Your task to perform on an android device: delete browsing data in the chrome app Image 0: 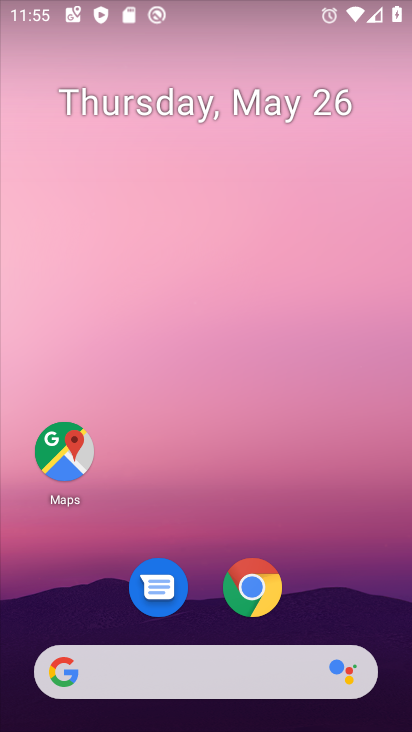
Step 0: drag from (297, 694) to (299, 53)
Your task to perform on an android device: delete browsing data in the chrome app Image 1: 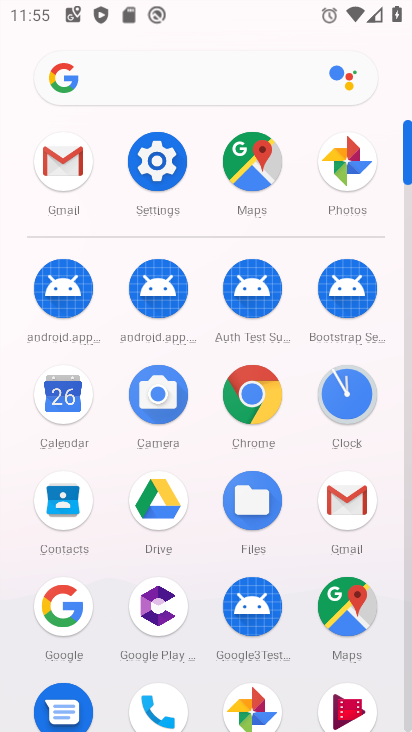
Step 1: click (255, 417)
Your task to perform on an android device: delete browsing data in the chrome app Image 2: 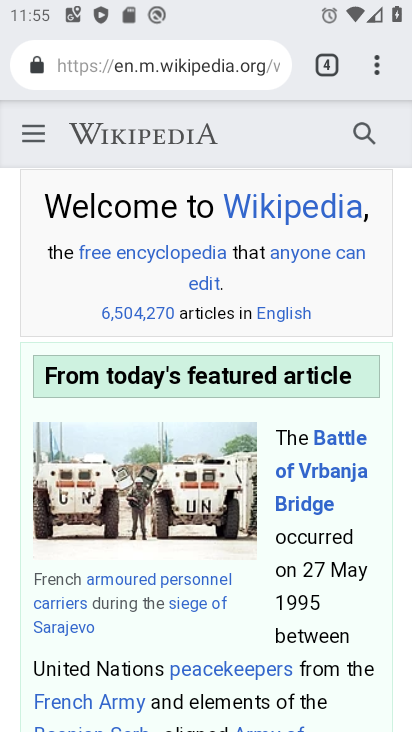
Step 2: click (374, 72)
Your task to perform on an android device: delete browsing data in the chrome app Image 3: 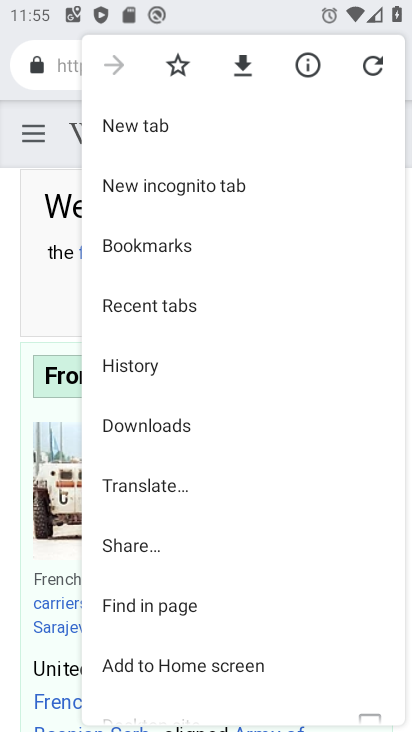
Step 3: drag from (236, 421) to (225, 94)
Your task to perform on an android device: delete browsing data in the chrome app Image 4: 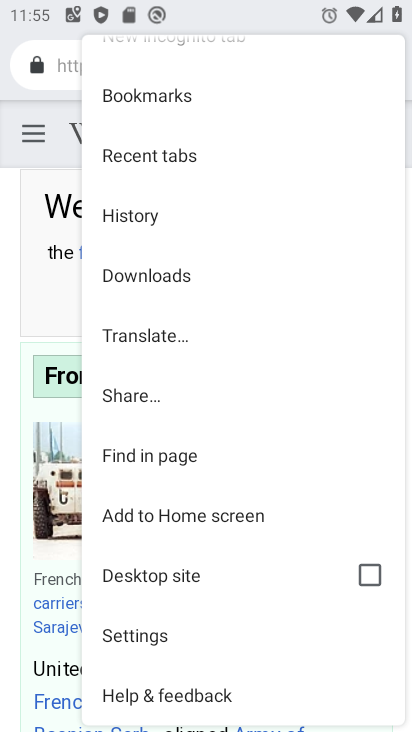
Step 4: click (157, 640)
Your task to perform on an android device: delete browsing data in the chrome app Image 5: 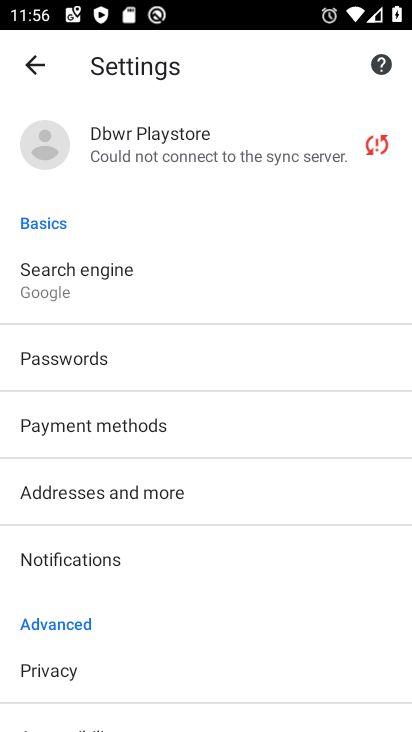
Step 5: drag from (156, 638) to (230, 352)
Your task to perform on an android device: delete browsing data in the chrome app Image 6: 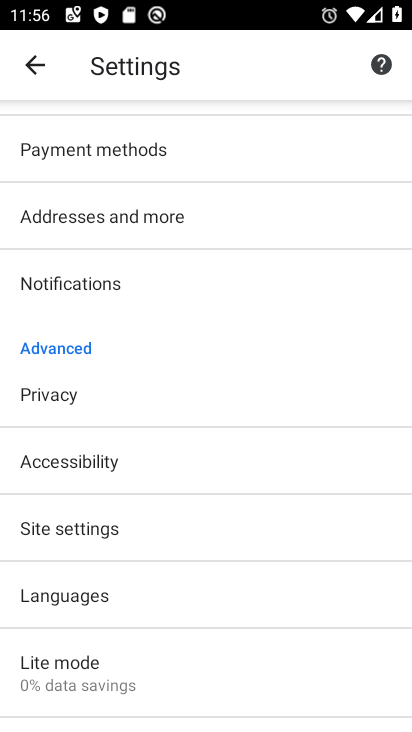
Step 6: drag from (151, 584) to (179, 437)
Your task to perform on an android device: delete browsing data in the chrome app Image 7: 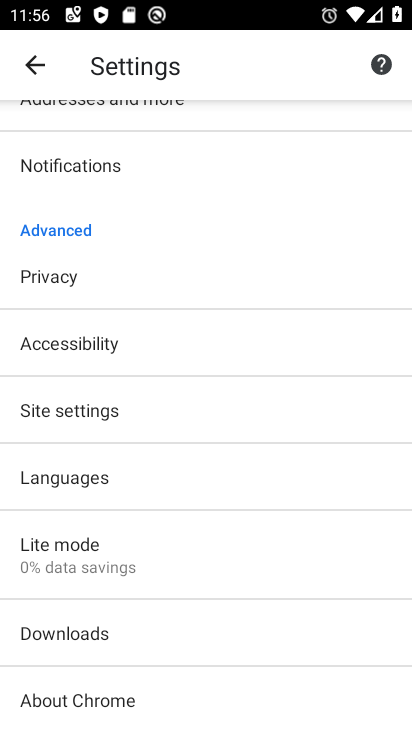
Step 7: click (68, 284)
Your task to perform on an android device: delete browsing data in the chrome app Image 8: 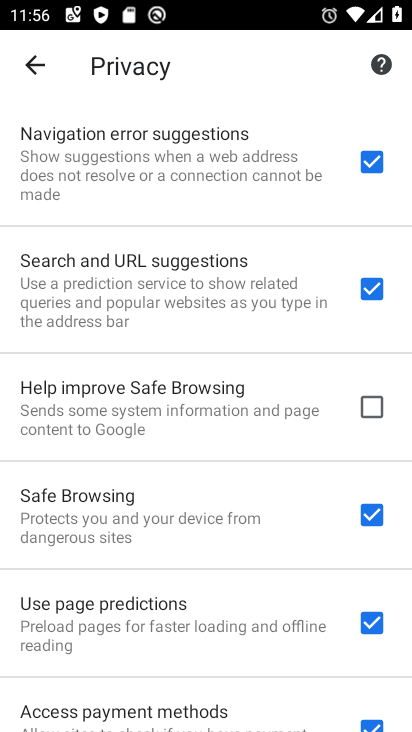
Step 8: drag from (182, 644) to (177, 184)
Your task to perform on an android device: delete browsing data in the chrome app Image 9: 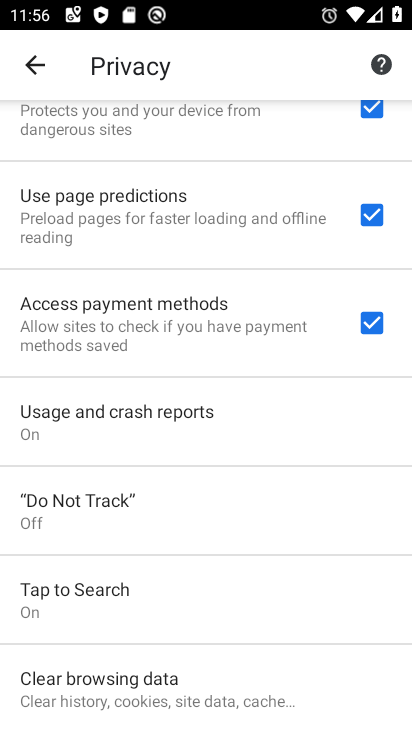
Step 9: click (123, 674)
Your task to perform on an android device: delete browsing data in the chrome app Image 10: 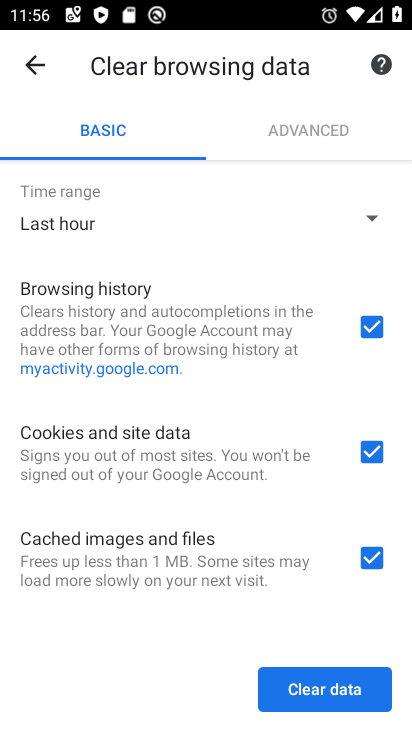
Step 10: click (284, 691)
Your task to perform on an android device: delete browsing data in the chrome app Image 11: 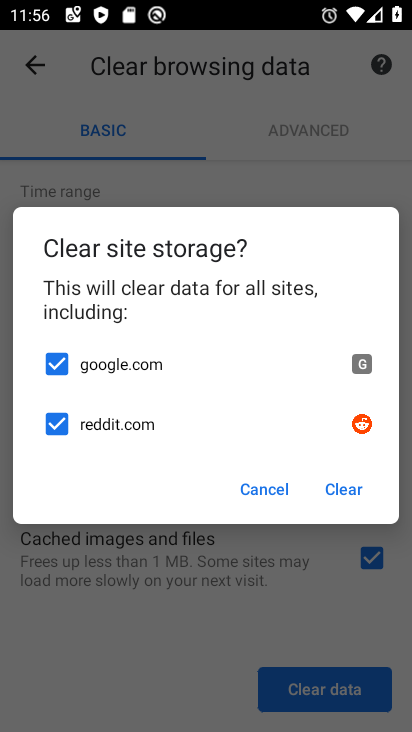
Step 11: task complete